Your task to perform on an android device: Open notification settings Image 0: 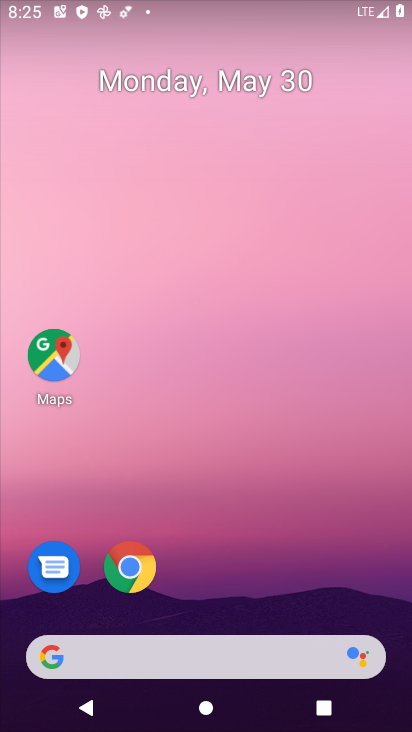
Step 0: drag from (319, 589) to (270, 47)
Your task to perform on an android device: Open notification settings Image 1: 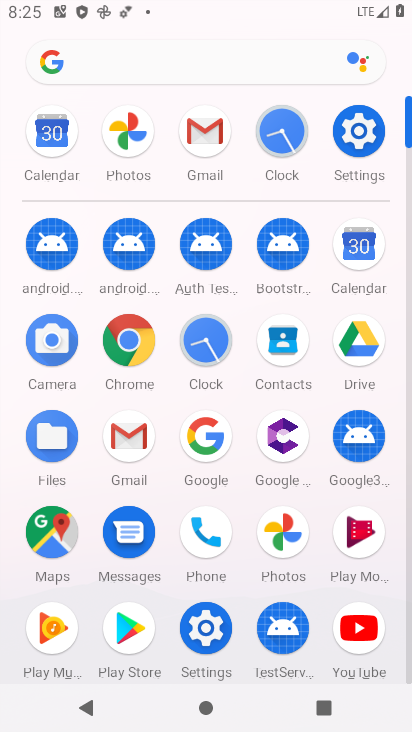
Step 1: click (344, 122)
Your task to perform on an android device: Open notification settings Image 2: 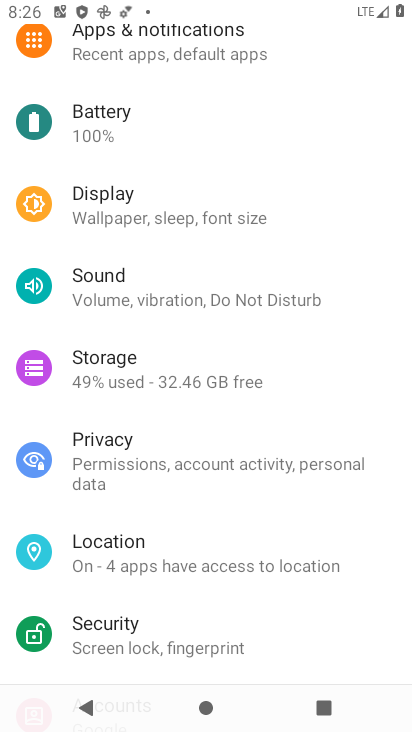
Step 2: click (223, 48)
Your task to perform on an android device: Open notification settings Image 3: 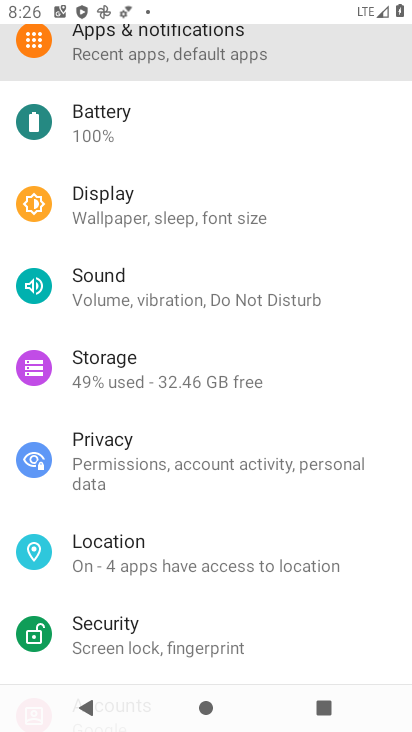
Step 3: task complete